Your task to perform on an android device: What is the recent news? Image 0: 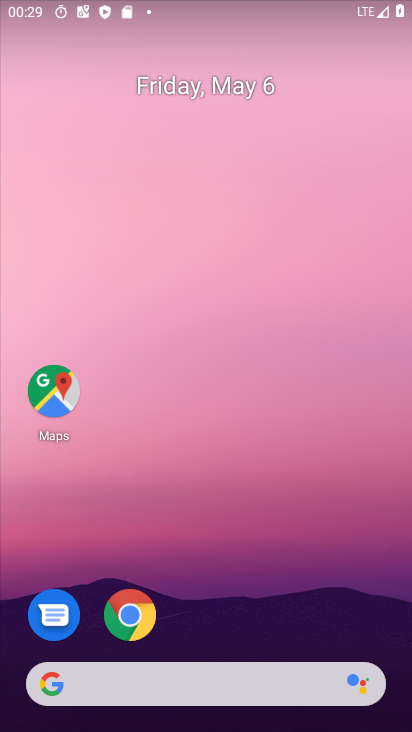
Step 0: drag from (254, 603) to (289, 136)
Your task to perform on an android device: What is the recent news? Image 1: 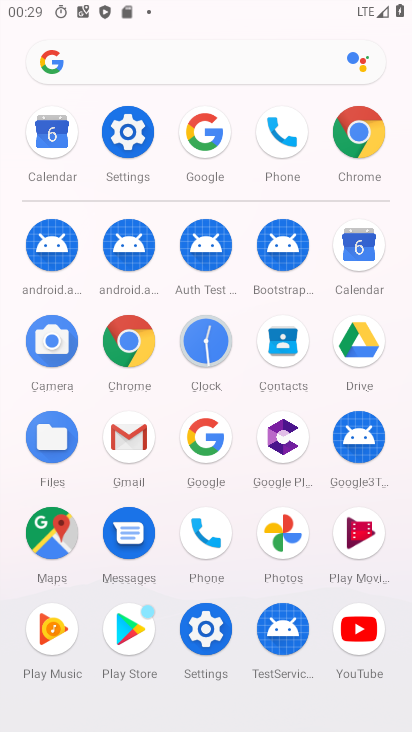
Step 1: click (206, 436)
Your task to perform on an android device: What is the recent news? Image 2: 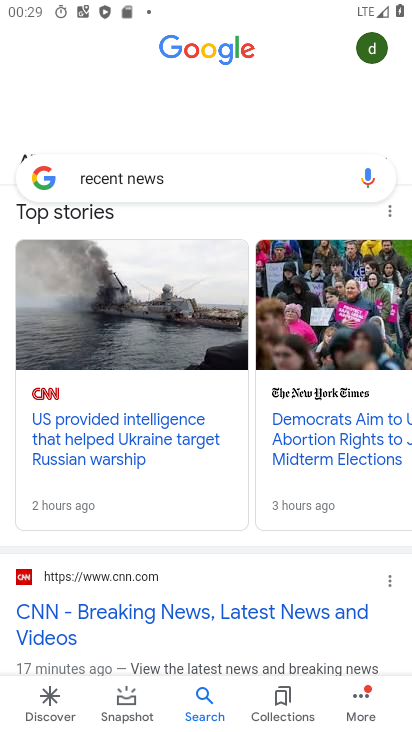
Step 2: click (214, 191)
Your task to perform on an android device: What is the recent news? Image 3: 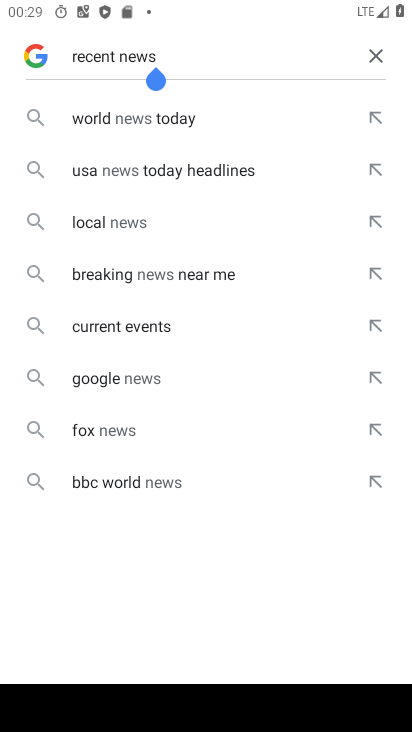
Step 3: click (365, 60)
Your task to perform on an android device: What is the recent news? Image 4: 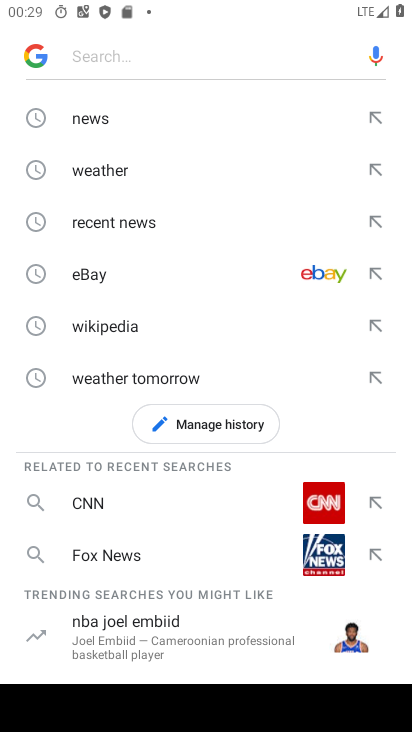
Step 4: click (122, 225)
Your task to perform on an android device: What is the recent news? Image 5: 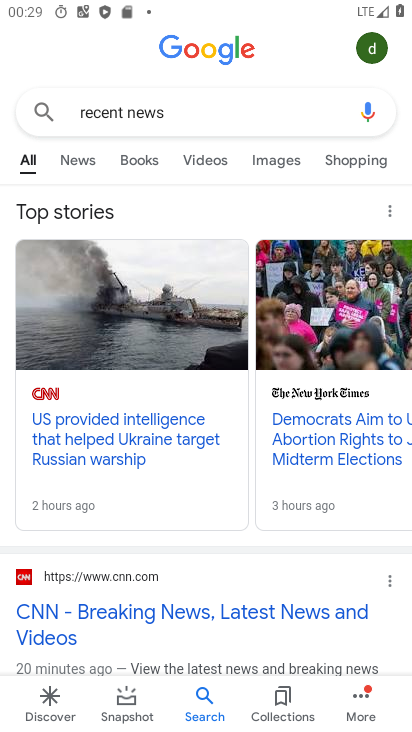
Step 5: task complete